Your task to perform on an android device: turn on wifi Image 0: 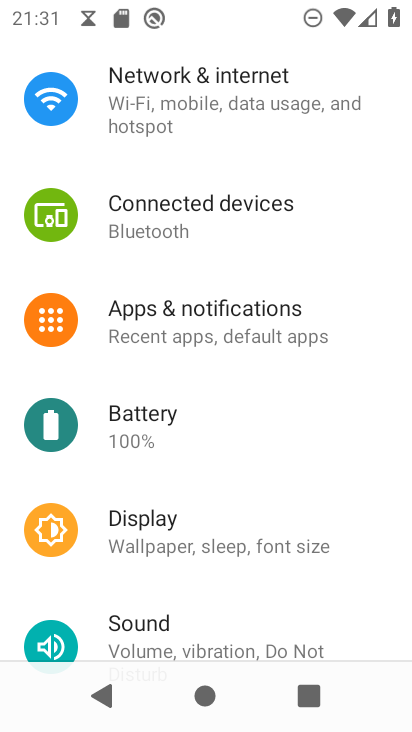
Step 0: drag from (304, 151) to (306, 551)
Your task to perform on an android device: turn on wifi Image 1: 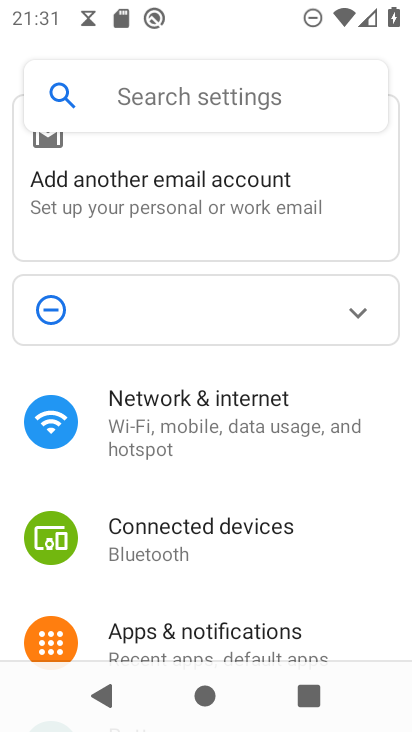
Step 1: click (221, 400)
Your task to perform on an android device: turn on wifi Image 2: 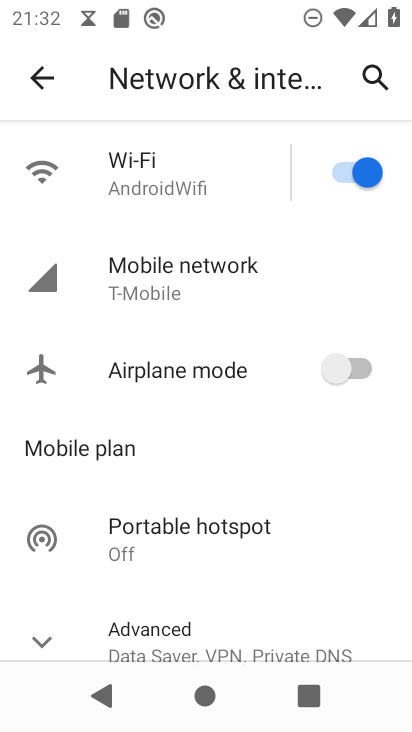
Step 2: task complete